Your task to perform on an android device: see sites visited before in the chrome app Image 0: 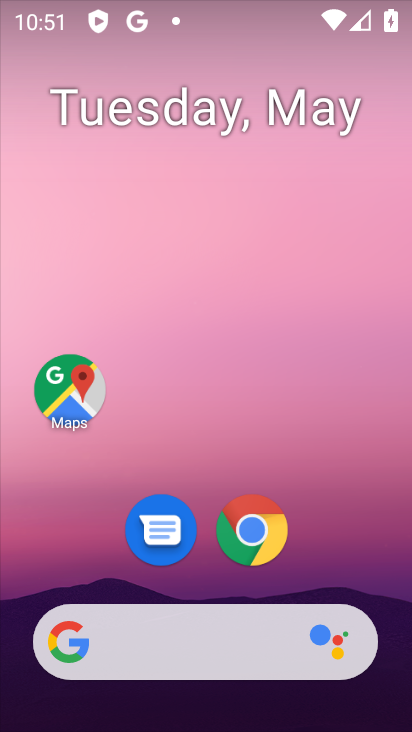
Step 0: click (253, 531)
Your task to perform on an android device: see sites visited before in the chrome app Image 1: 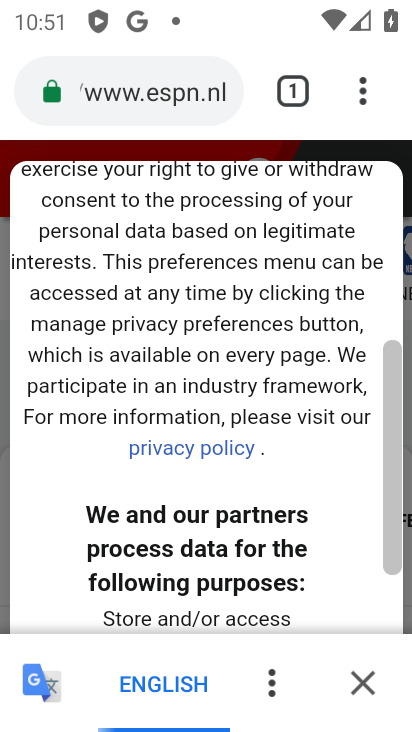
Step 1: task complete